Your task to perform on an android device: open app "DoorDash - Food Delivery" (install if not already installed) and enter user name: "Richard@outlook.com" and password: "informally" Image 0: 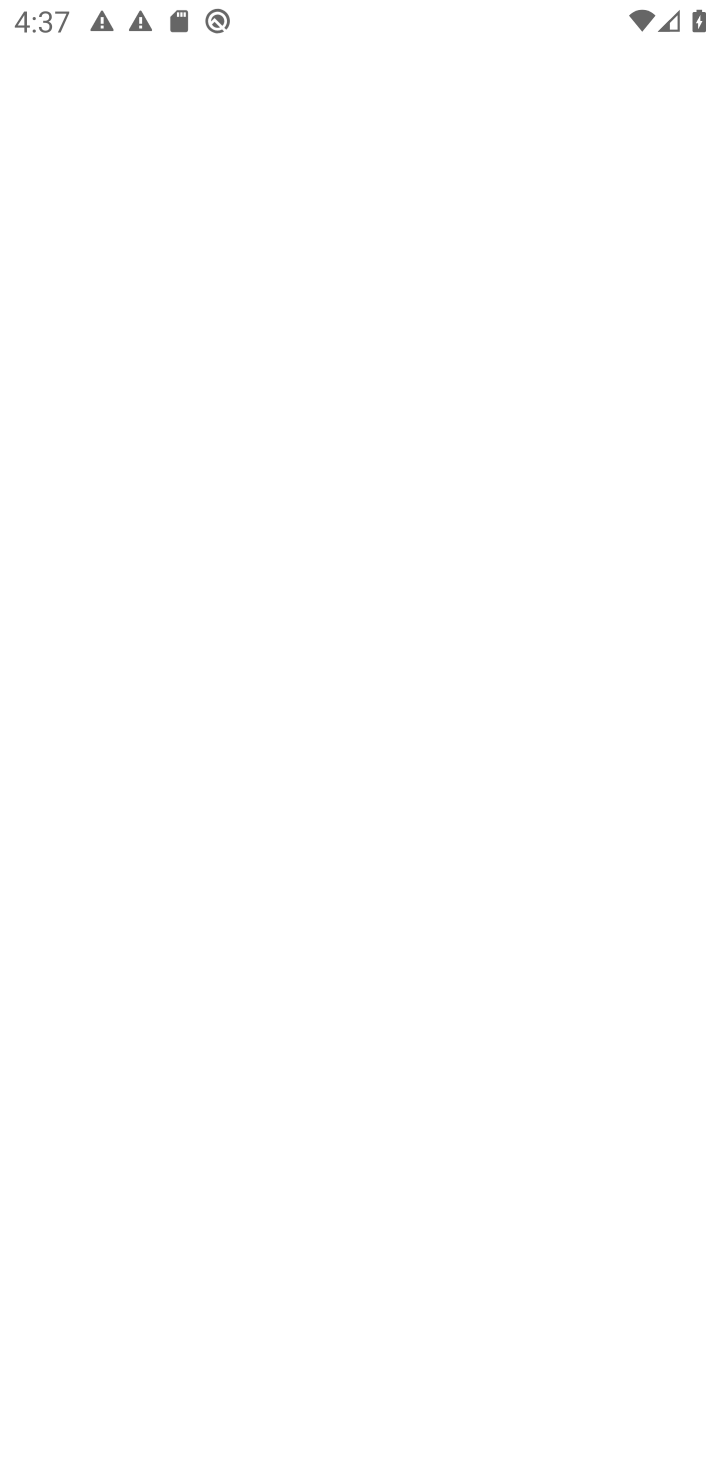
Step 0: press back button
Your task to perform on an android device: open app "DoorDash - Food Delivery" (install if not already installed) and enter user name: "Richard@outlook.com" and password: "informally" Image 1: 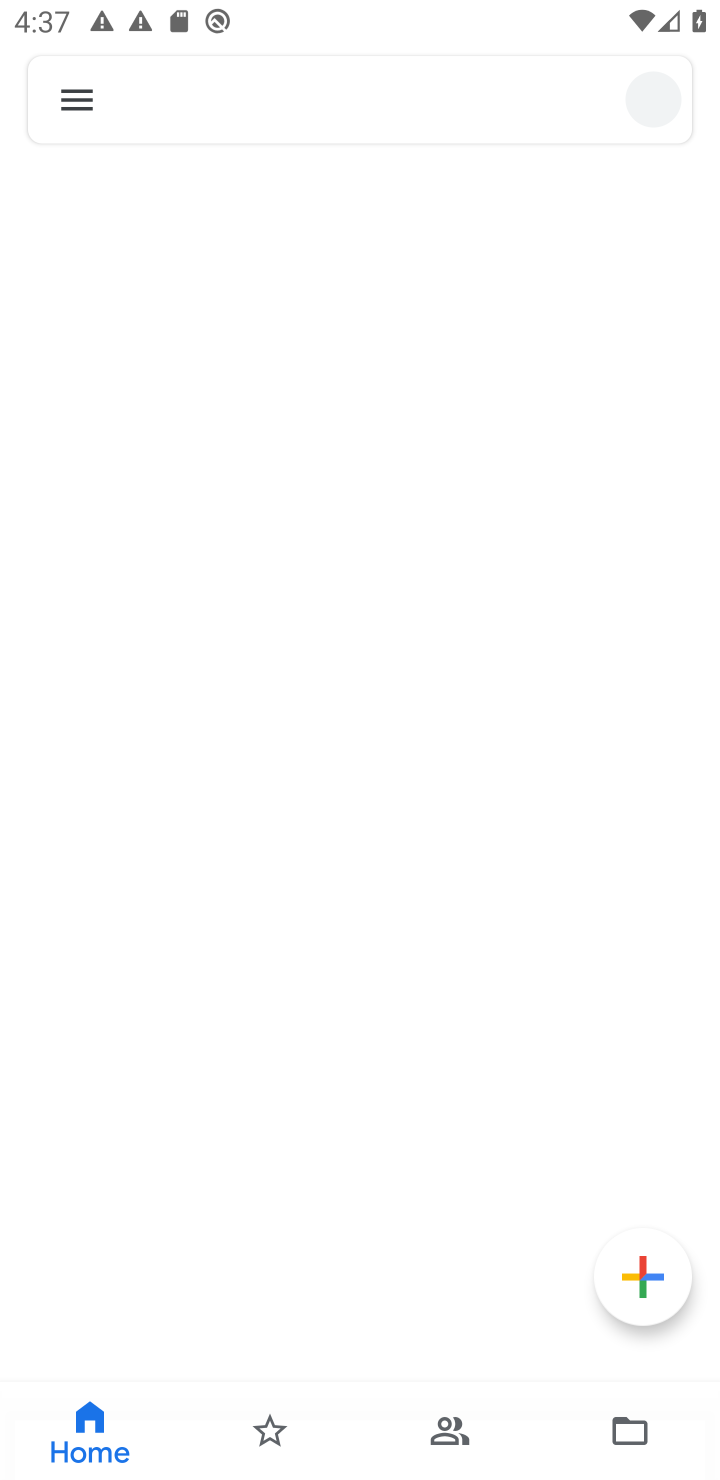
Step 1: press home button
Your task to perform on an android device: open app "DoorDash - Food Delivery" (install if not already installed) and enter user name: "Richard@outlook.com" and password: "informally" Image 2: 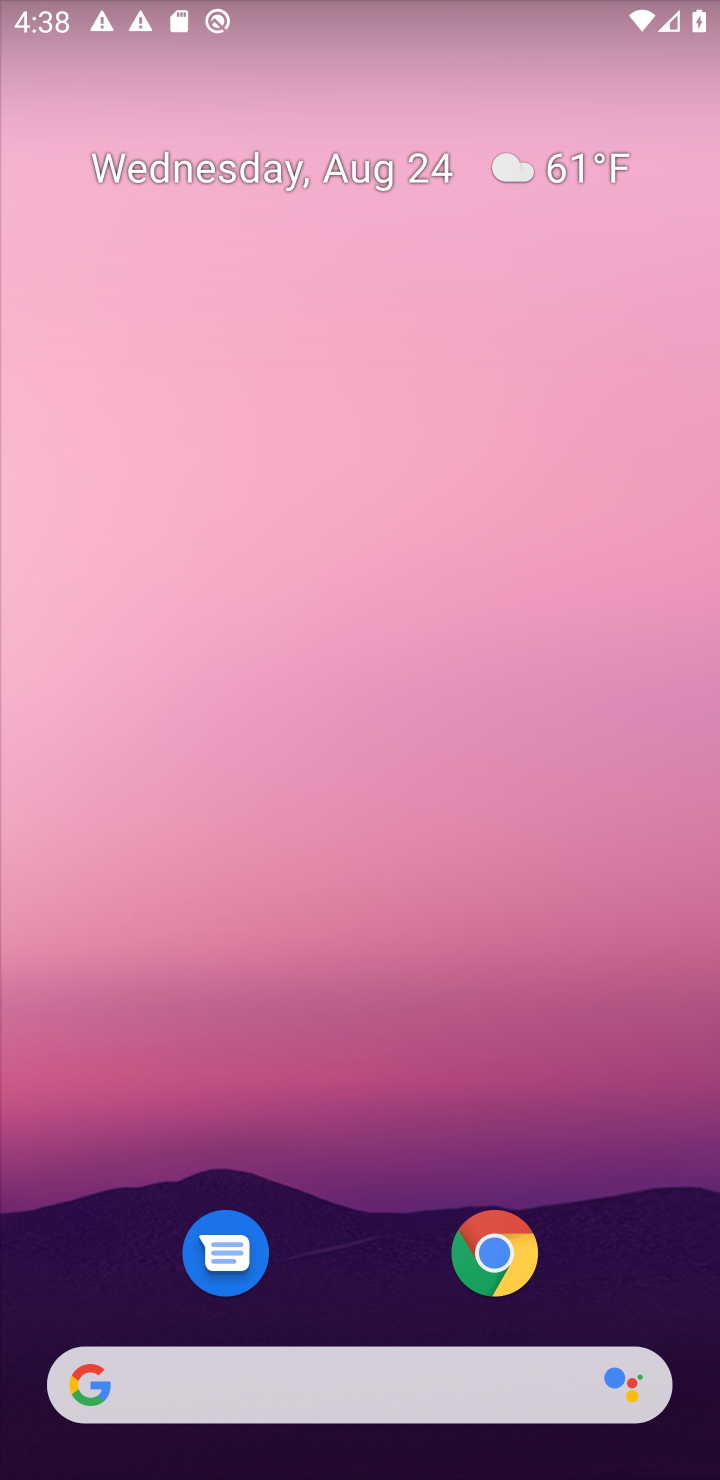
Step 2: drag from (380, 954) to (428, 6)
Your task to perform on an android device: open app "DoorDash - Food Delivery" (install if not already installed) and enter user name: "Richard@outlook.com" and password: "informally" Image 3: 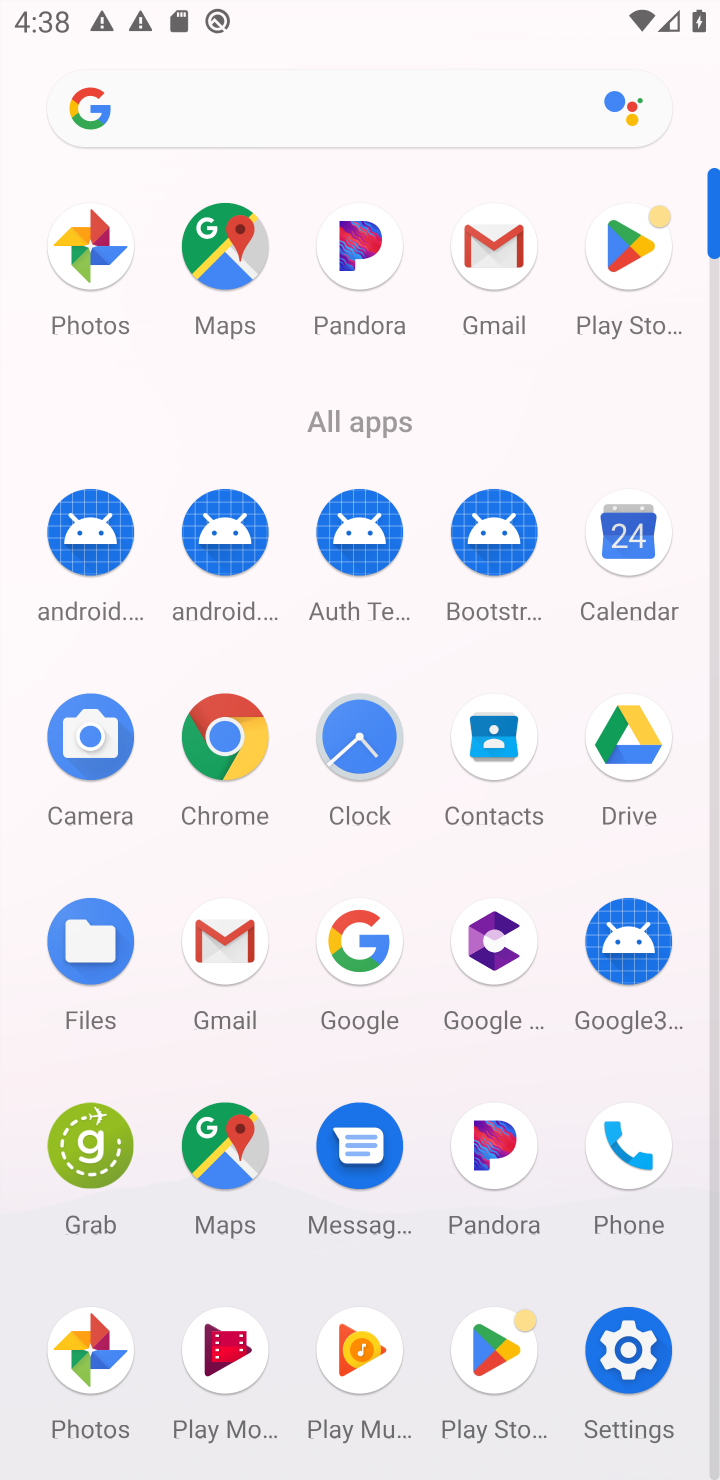
Step 3: click (631, 256)
Your task to perform on an android device: open app "DoorDash - Food Delivery" (install if not already installed) and enter user name: "Richard@outlook.com" and password: "informally" Image 4: 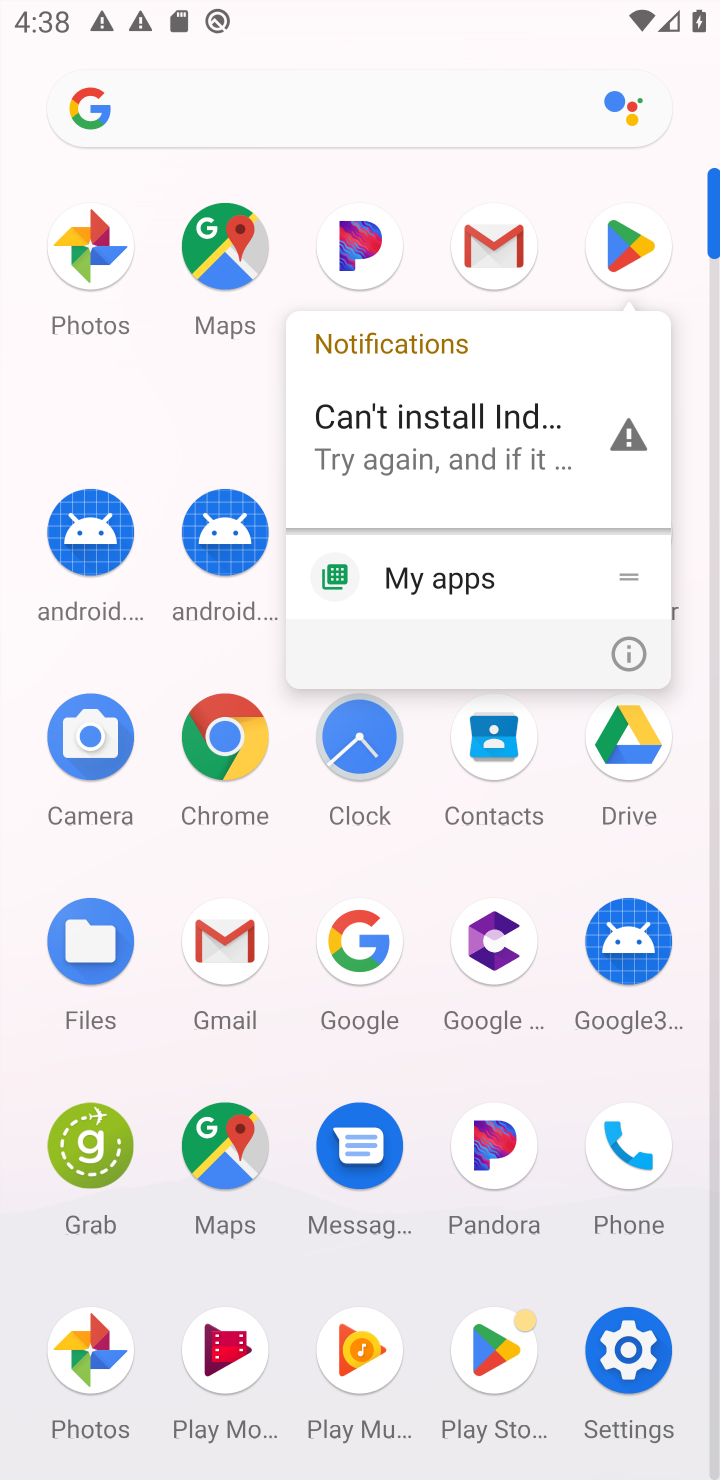
Step 4: click (625, 258)
Your task to perform on an android device: open app "DoorDash - Food Delivery" (install if not already installed) and enter user name: "Richard@outlook.com" and password: "informally" Image 5: 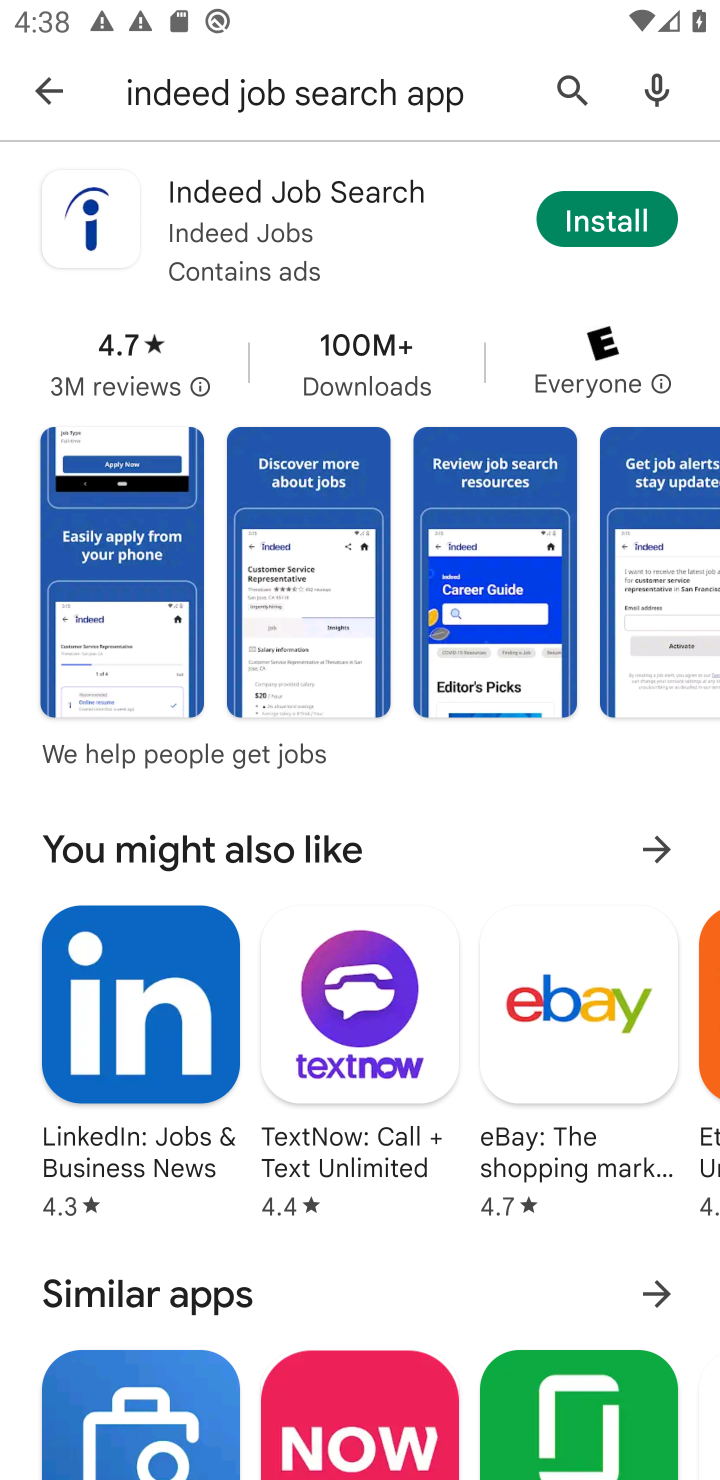
Step 5: click (561, 76)
Your task to perform on an android device: open app "DoorDash - Food Delivery" (install if not already installed) and enter user name: "Richard@outlook.com" and password: "informally" Image 6: 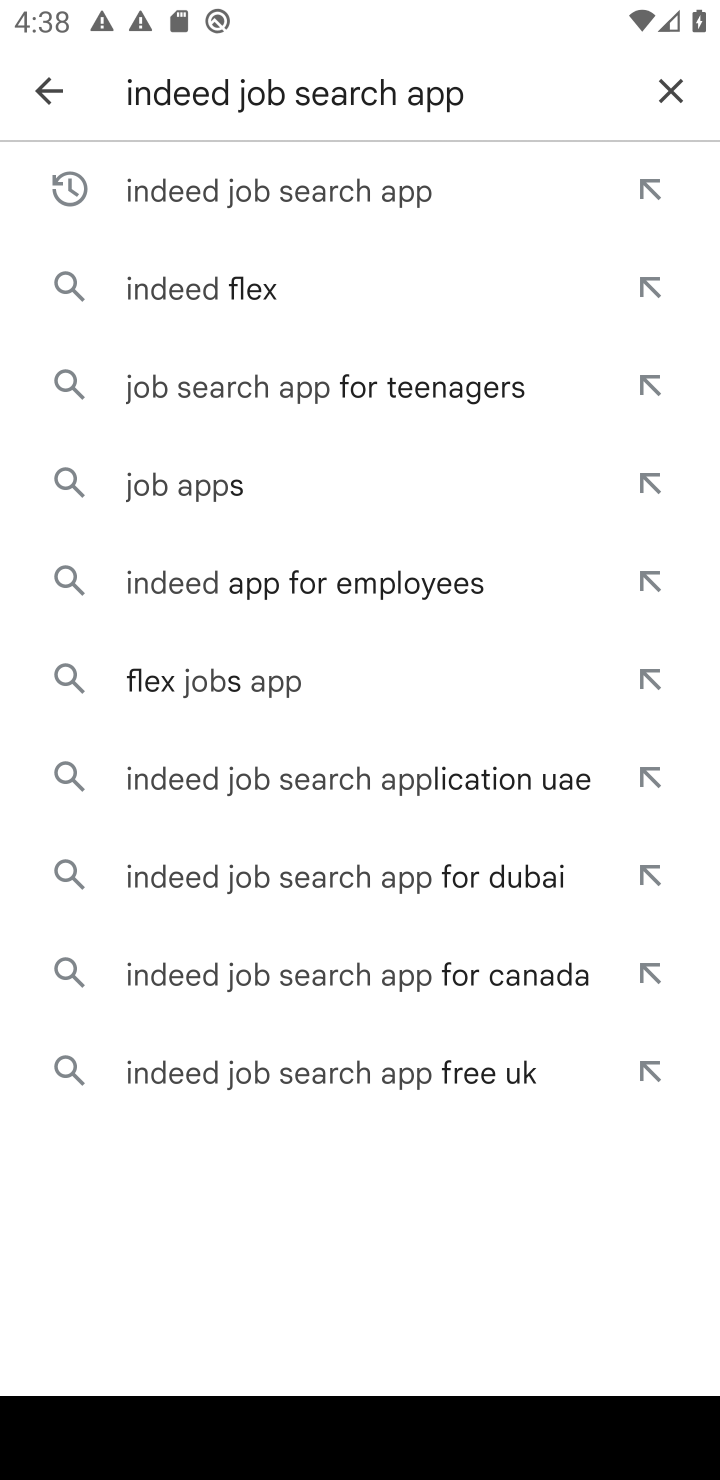
Step 6: click (686, 73)
Your task to perform on an android device: open app "DoorDash - Food Delivery" (install if not already installed) and enter user name: "Richard@outlook.com" and password: "informally" Image 7: 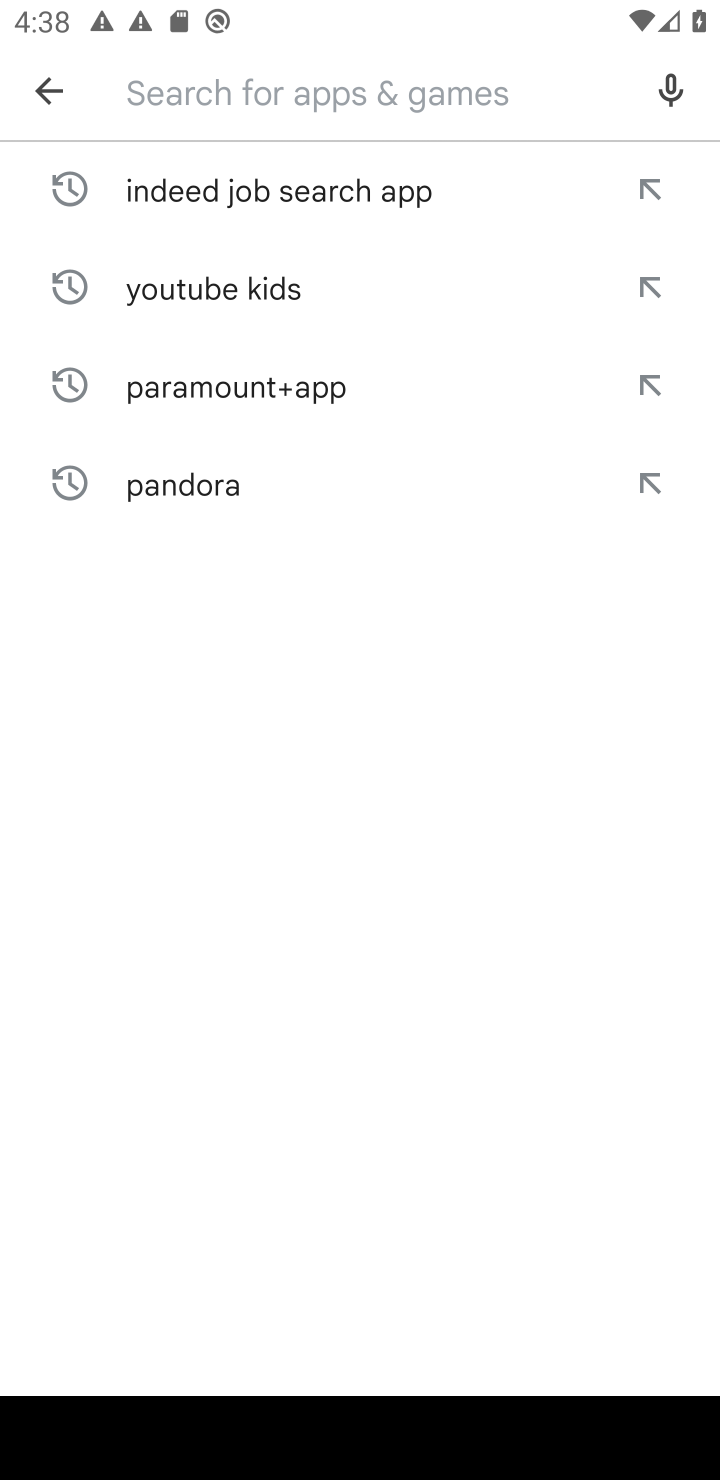
Step 7: click (343, 98)
Your task to perform on an android device: open app "DoorDash - Food Delivery" (install if not already installed) and enter user name: "Richard@outlook.com" and password: "informally" Image 8: 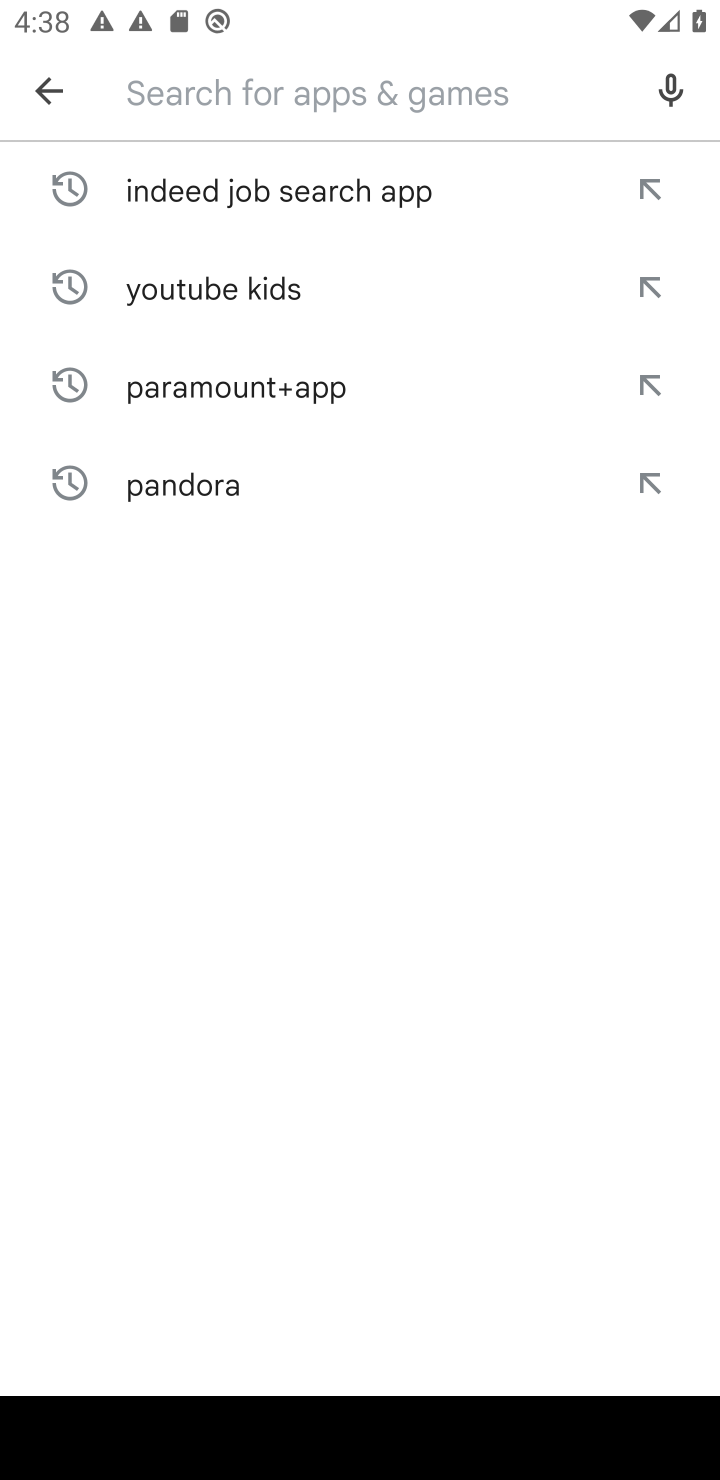
Step 8: type "doordash"
Your task to perform on an android device: open app "DoorDash - Food Delivery" (install if not already installed) and enter user name: "Richard@outlook.com" and password: "informally" Image 9: 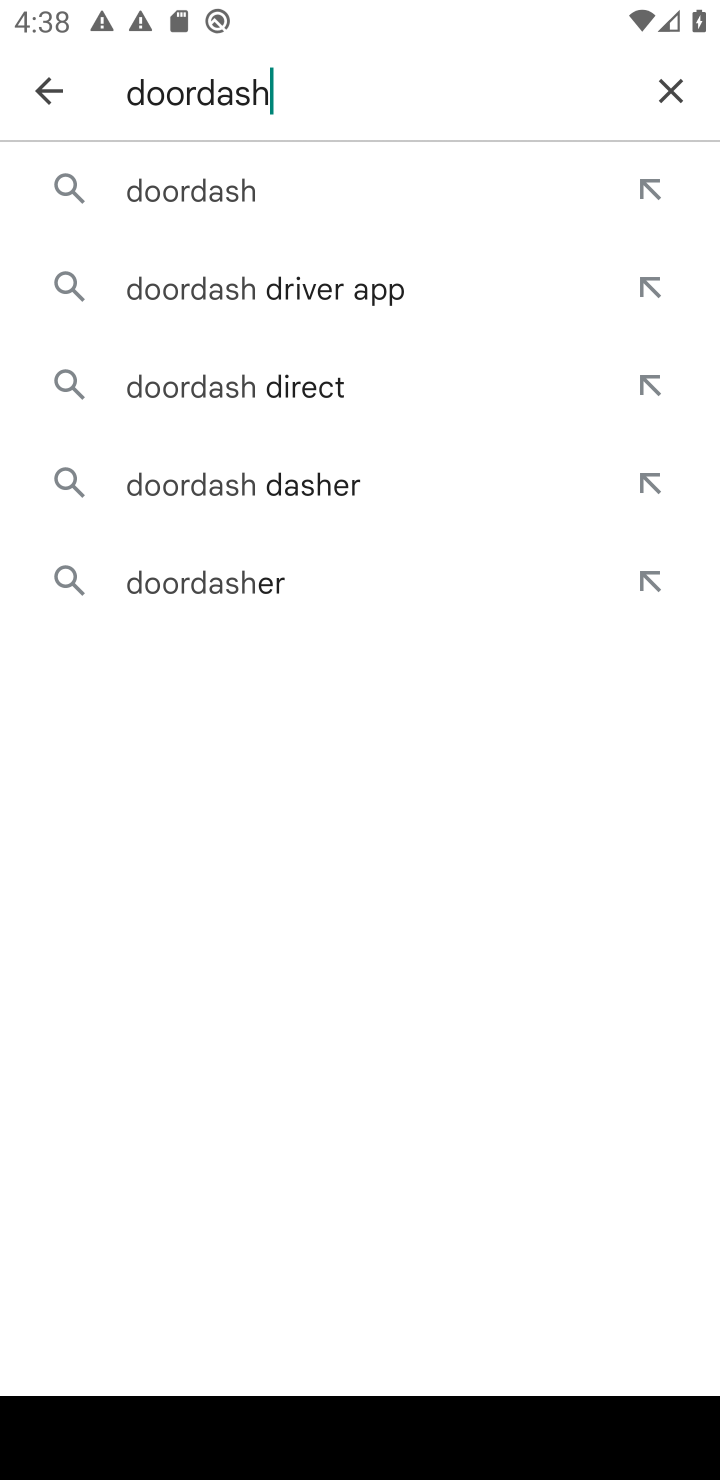
Step 9: click (213, 199)
Your task to perform on an android device: open app "DoorDash - Food Delivery" (install if not already installed) and enter user name: "Richard@outlook.com" and password: "informally" Image 10: 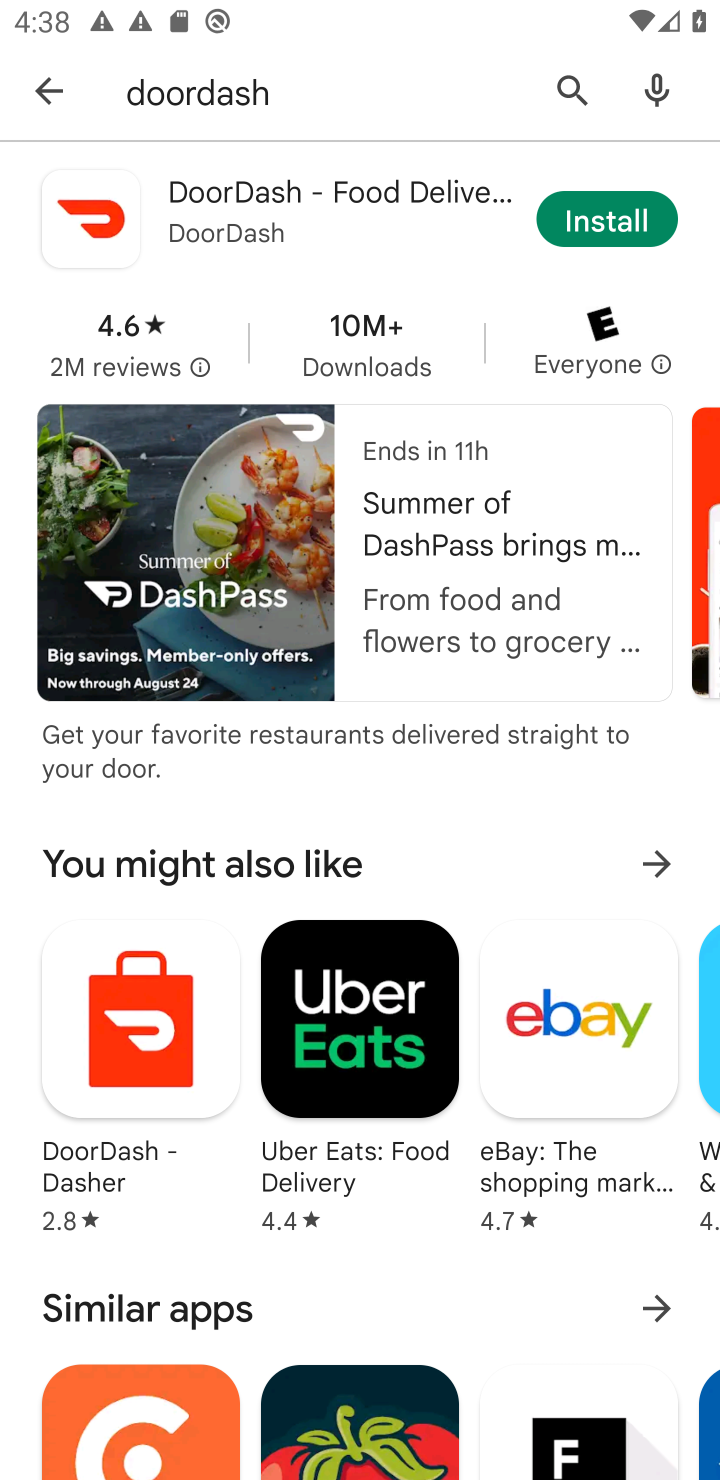
Step 10: click (569, 221)
Your task to perform on an android device: open app "DoorDash - Food Delivery" (install if not already installed) and enter user name: "Richard@outlook.com" and password: "informally" Image 11: 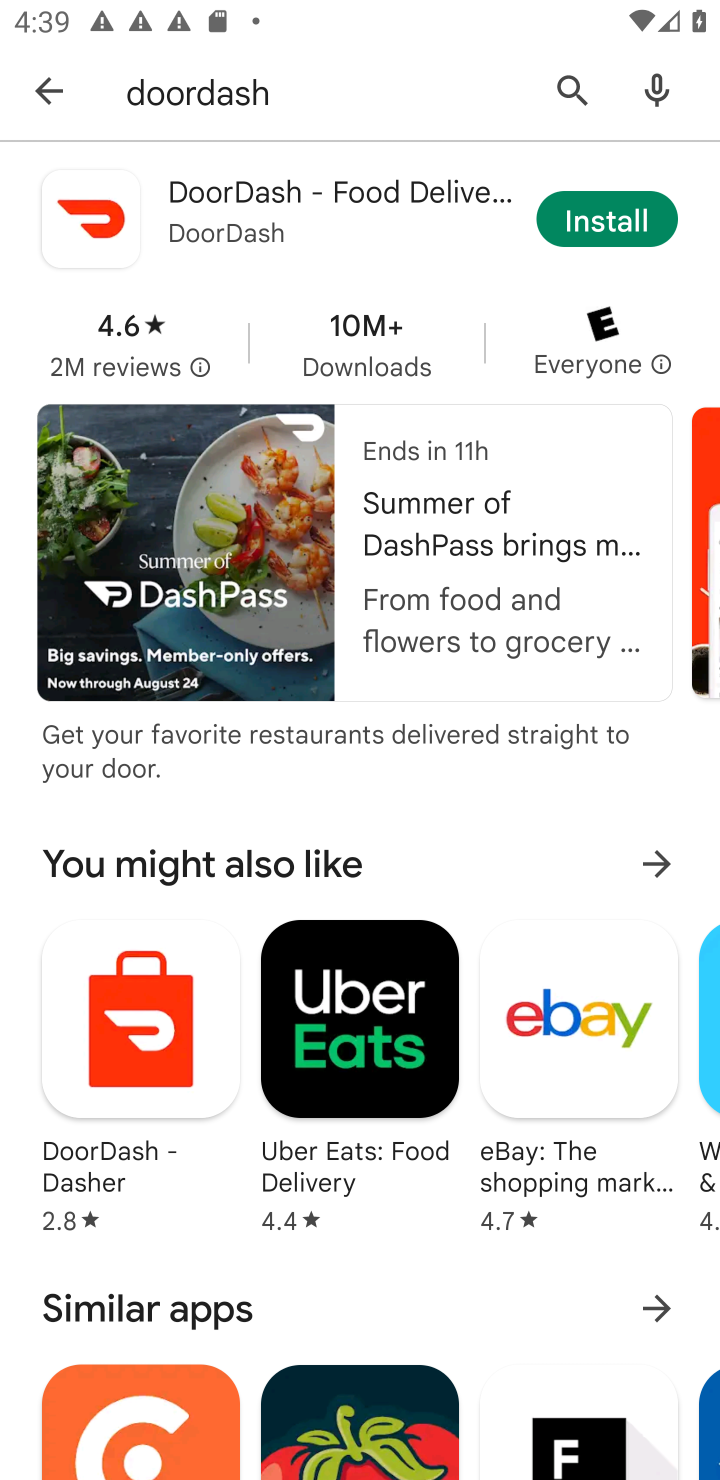
Step 11: click (609, 222)
Your task to perform on an android device: open app "DoorDash - Food Delivery" (install if not already installed) and enter user name: "Richard@outlook.com" and password: "informally" Image 12: 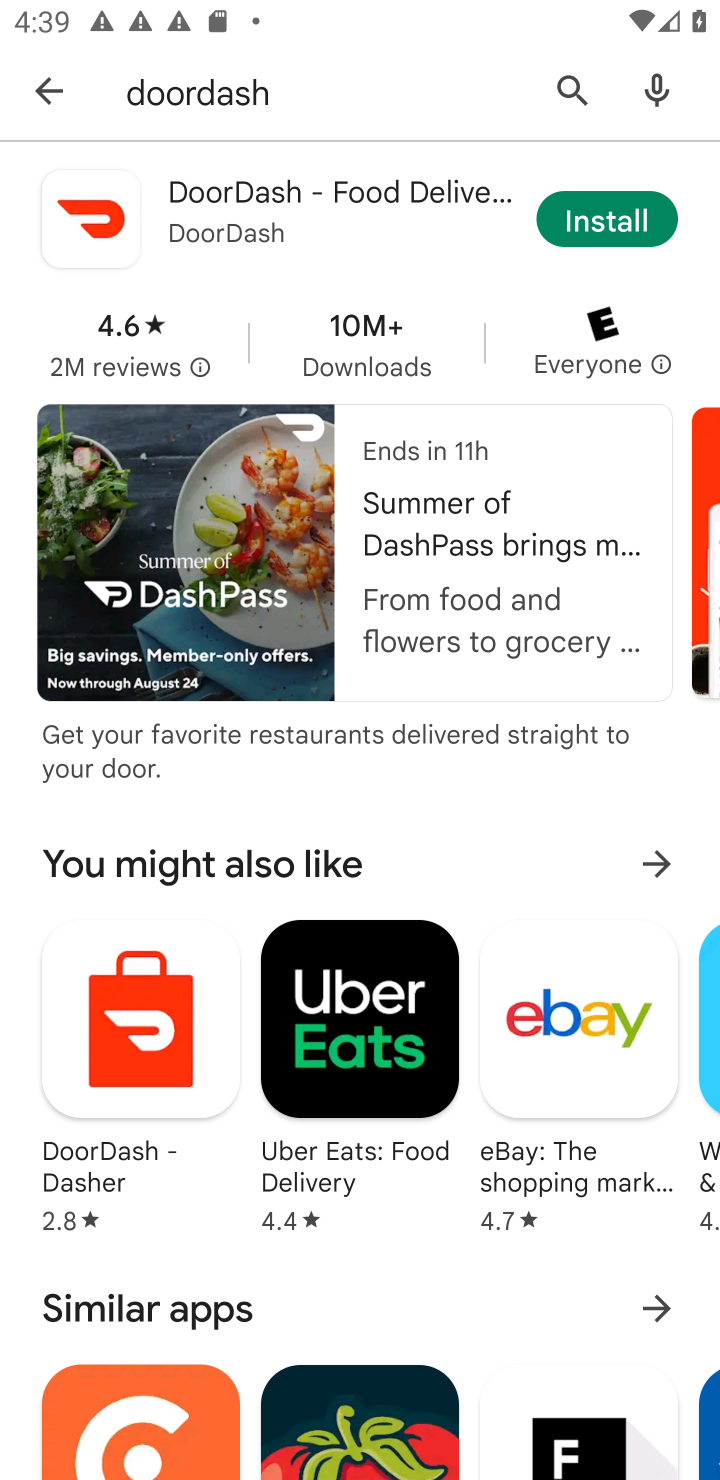
Step 12: task complete